Your task to perform on an android device: Show me recent news Image 0: 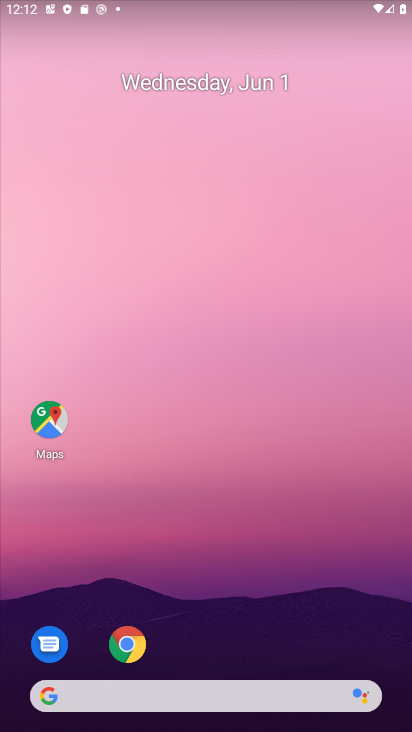
Step 0: drag from (215, 554) to (205, 65)
Your task to perform on an android device: Show me recent news Image 1: 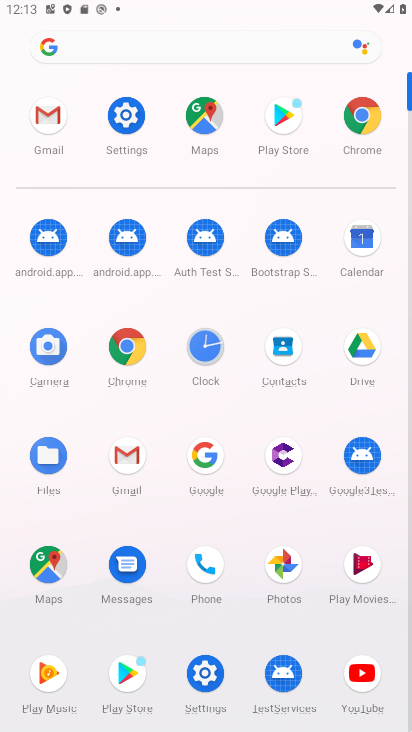
Step 1: drag from (308, 596) to (324, 260)
Your task to perform on an android device: Show me recent news Image 2: 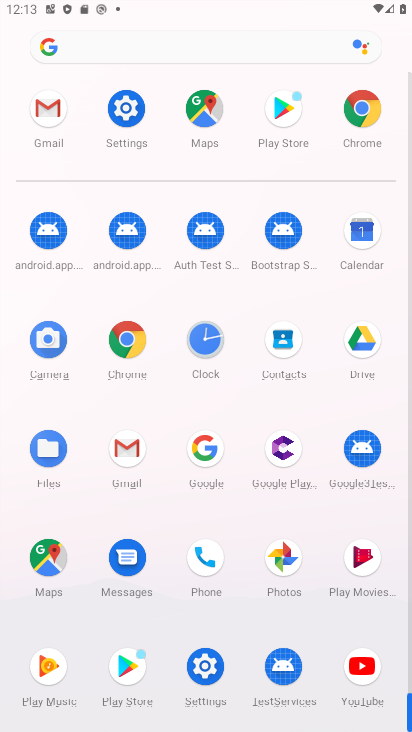
Step 2: click (118, 336)
Your task to perform on an android device: Show me recent news Image 3: 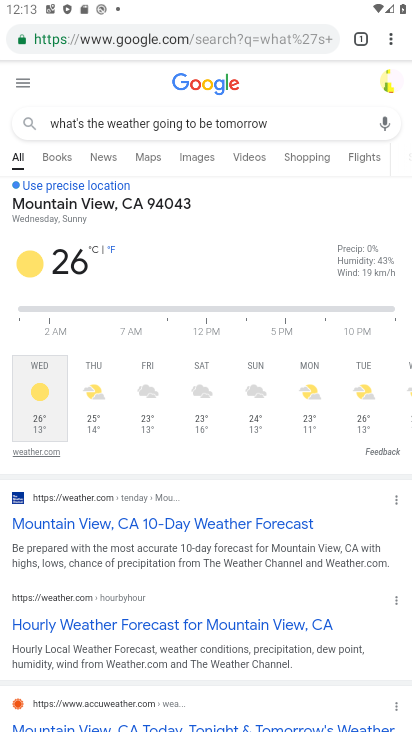
Step 3: click (239, 39)
Your task to perform on an android device: Show me recent news Image 4: 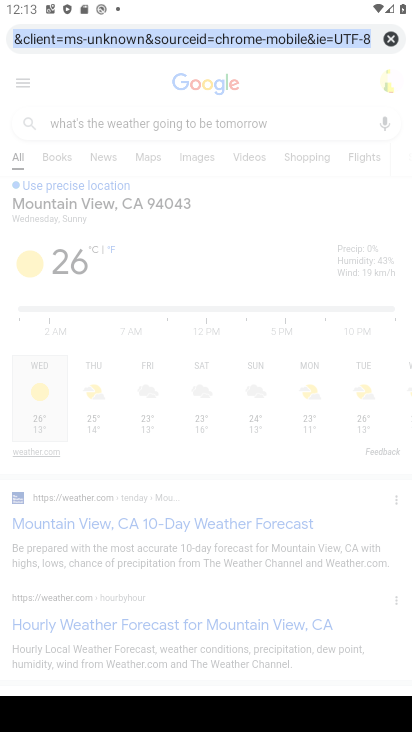
Step 4: click (390, 48)
Your task to perform on an android device: Show me recent news Image 5: 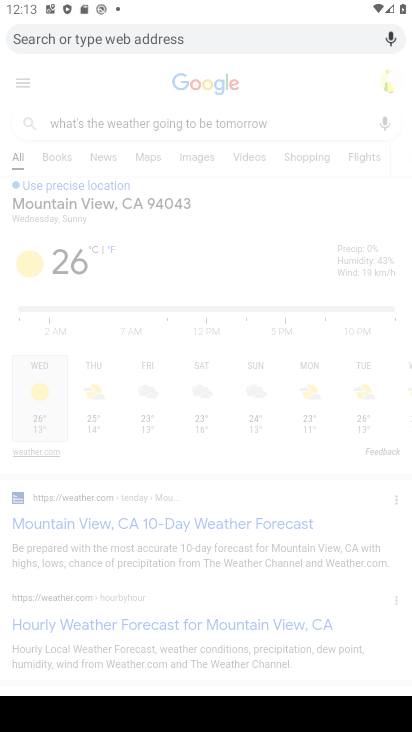
Step 5: type "recent news"
Your task to perform on an android device: Show me recent news Image 6: 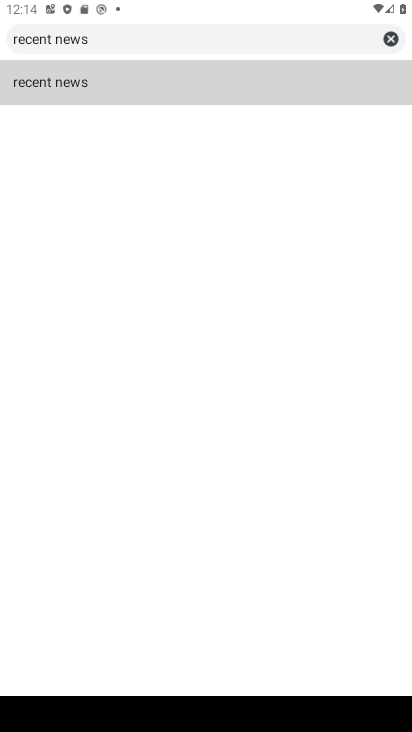
Step 6: click (174, 91)
Your task to perform on an android device: Show me recent news Image 7: 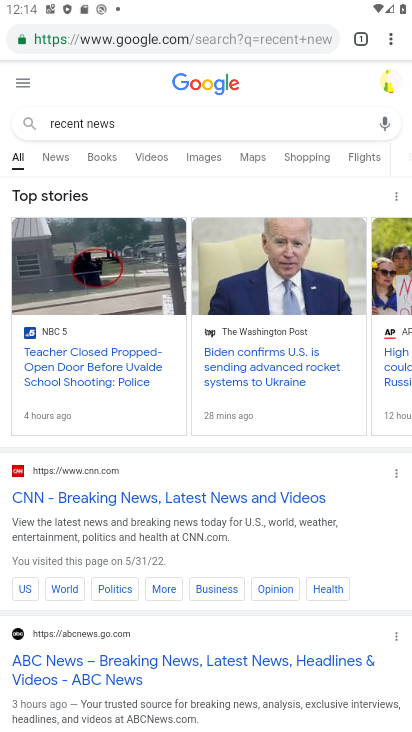
Step 7: task complete